Your task to perform on an android device: clear all cookies in the chrome app Image 0: 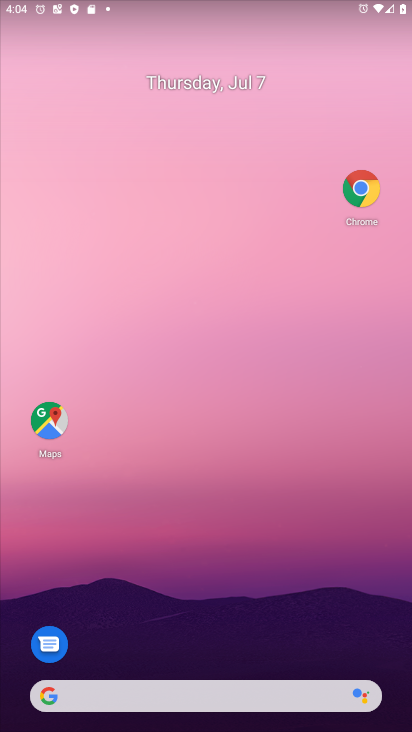
Step 0: press home button
Your task to perform on an android device: clear all cookies in the chrome app Image 1: 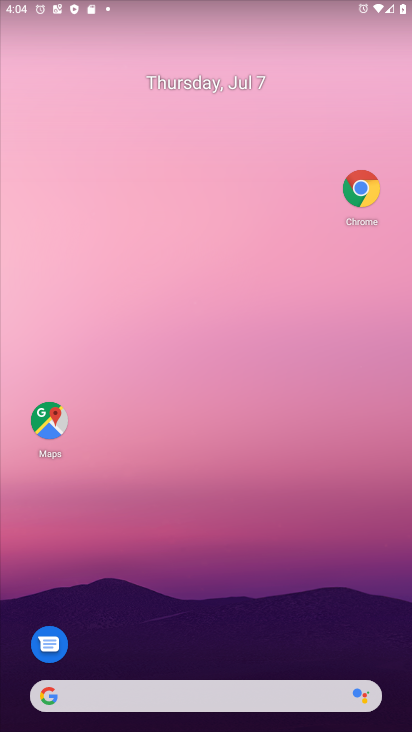
Step 1: click (346, 176)
Your task to perform on an android device: clear all cookies in the chrome app Image 2: 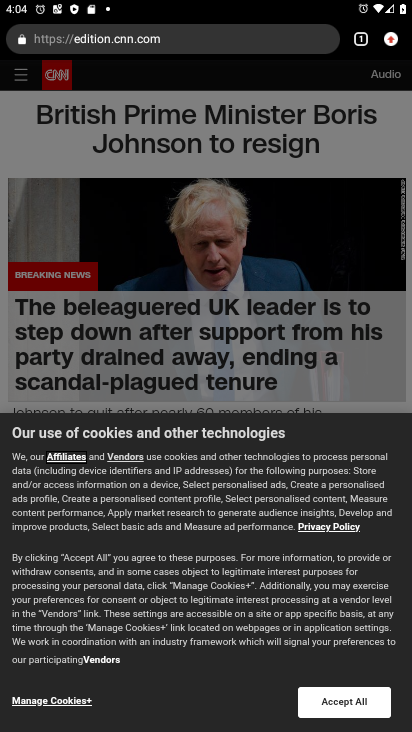
Step 2: click (389, 35)
Your task to perform on an android device: clear all cookies in the chrome app Image 3: 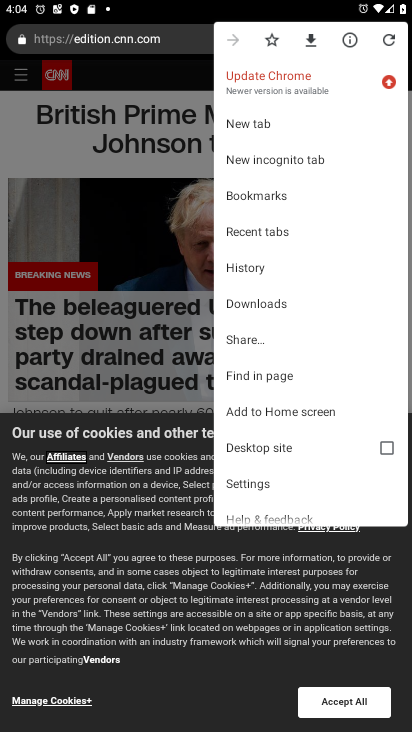
Step 3: click (244, 482)
Your task to perform on an android device: clear all cookies in the chrome app Image 4: 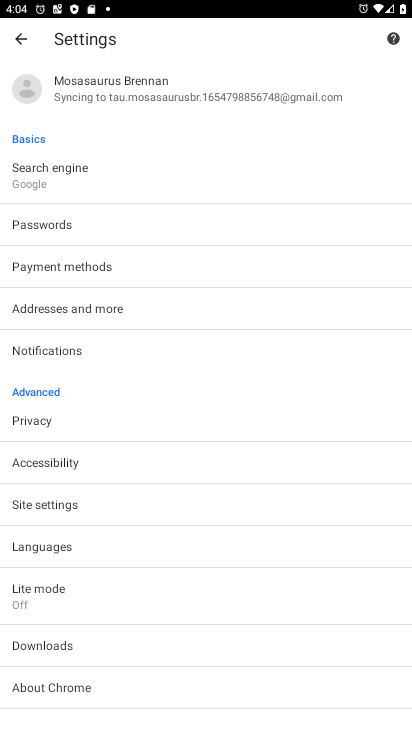
Step 4: click (58, 415)
Your task to perform on an android device: clear all cookies in the chrome app Image 5: 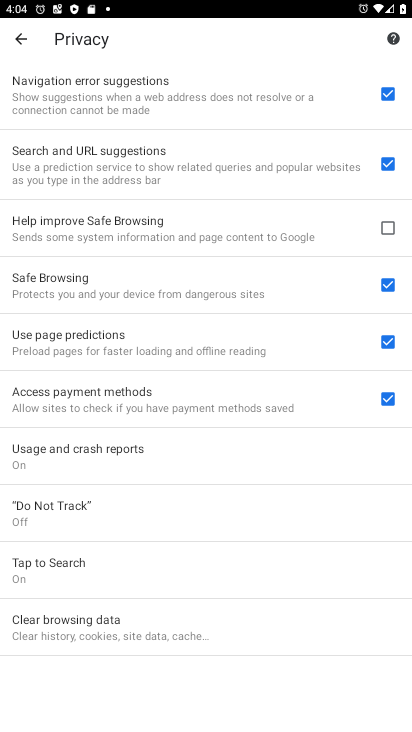
Step 5: click (44, 628)
Your task to perform on an android device: clear all cookies in the chrome app Image 6: 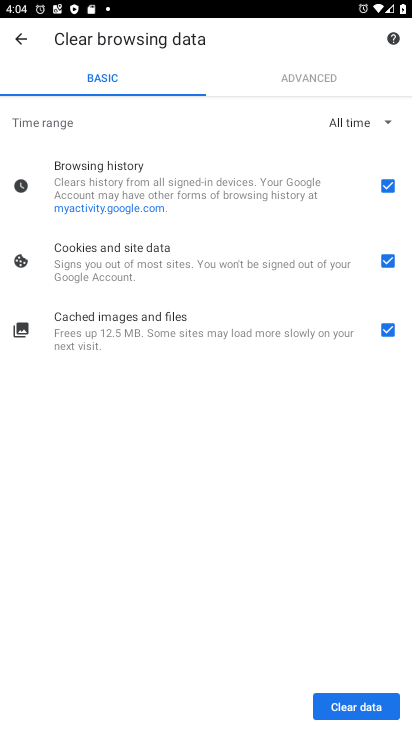
Step 6: click (384, 688)
Your task to perform on an android device: clear all cookies in the chrome app Image 7: 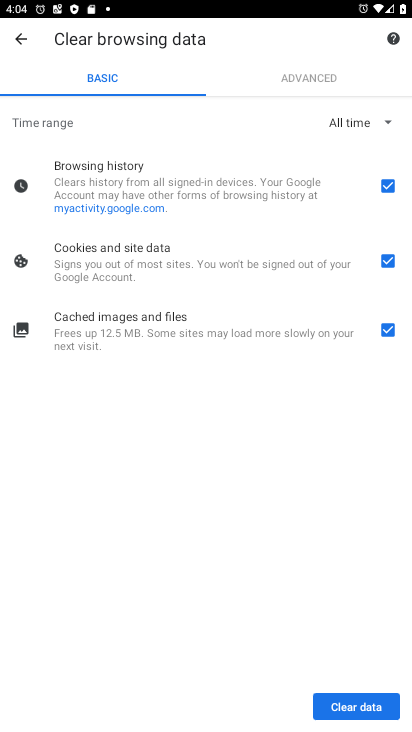
Step 7: click (386, 695)
Your task to perform on an android device: clear all cookies in the chrome app Image 8: 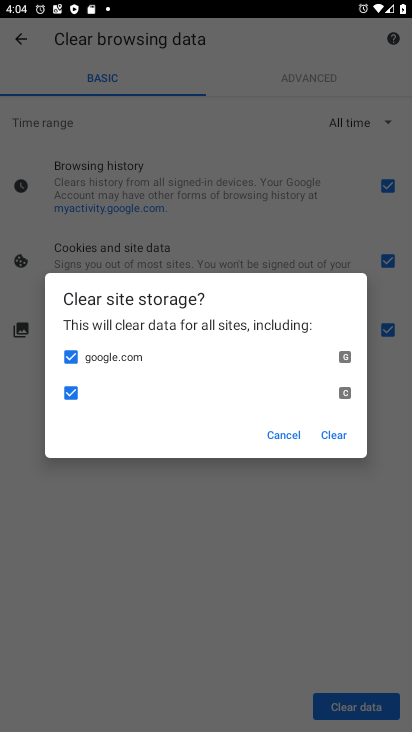
Step 8: click (323, 441)
Your task to perform on an android device: clear all cookies in the chrome app Image 9: 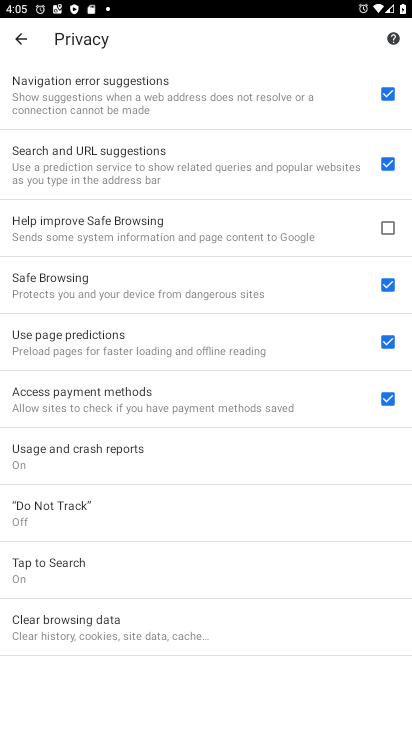
Step 9: task complete